Your task to perform on an android device: check android version Image 0: 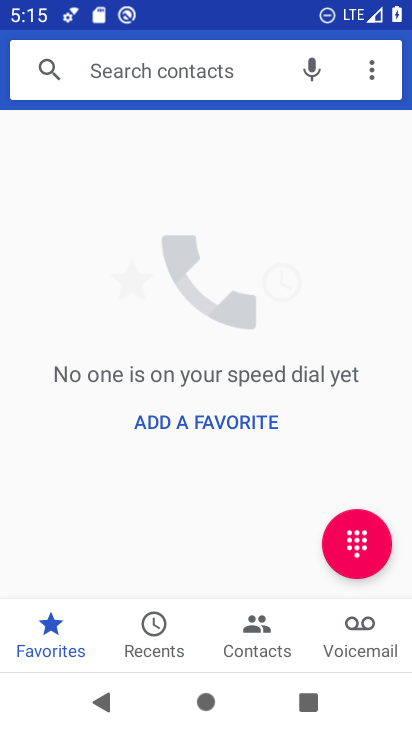
Step 0: drag from (382, 560) to (386, 82)
Your task to perform on an android device: check android version Image 1: 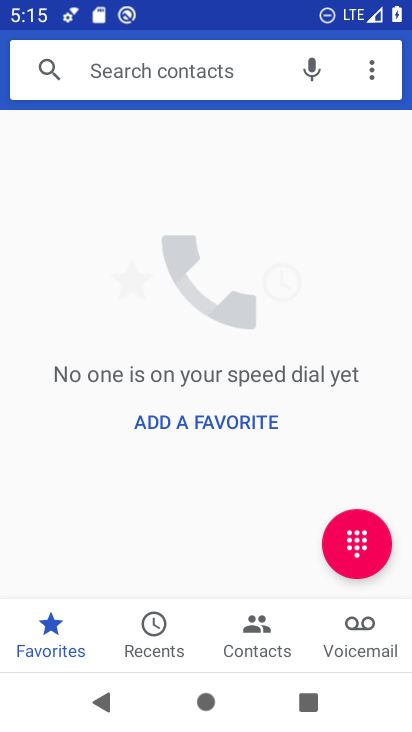
Step 1: press home button
Your task to perform on an android device: check android version Image 2: 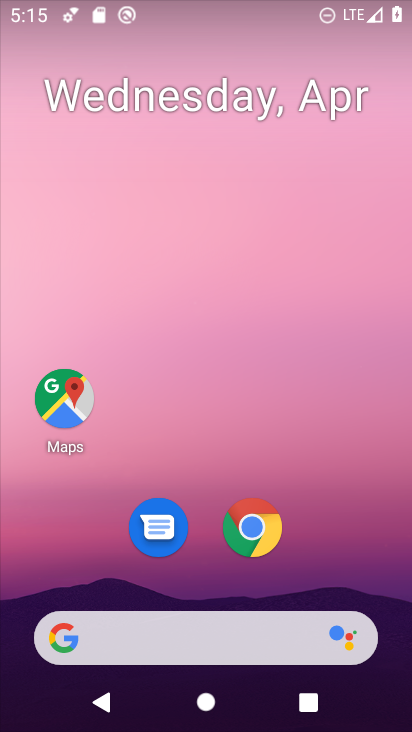
Step 2: drag from (309, 439) to (322, 14)
Your task to perform on an android device: check android version Image 3: 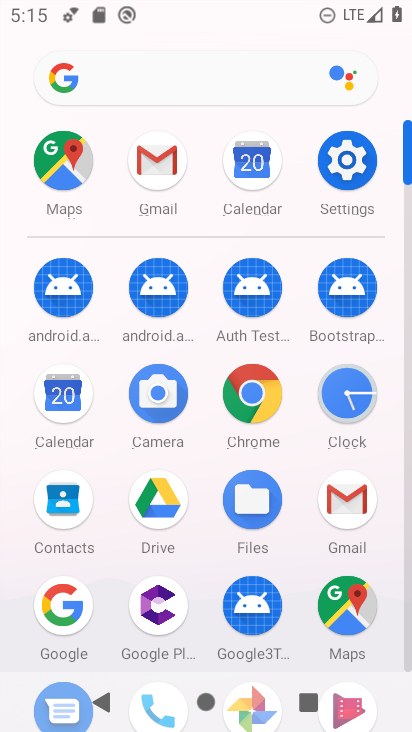
Step 3: click (345, 165)
Your task to perform on an android device: check android version Image 4: 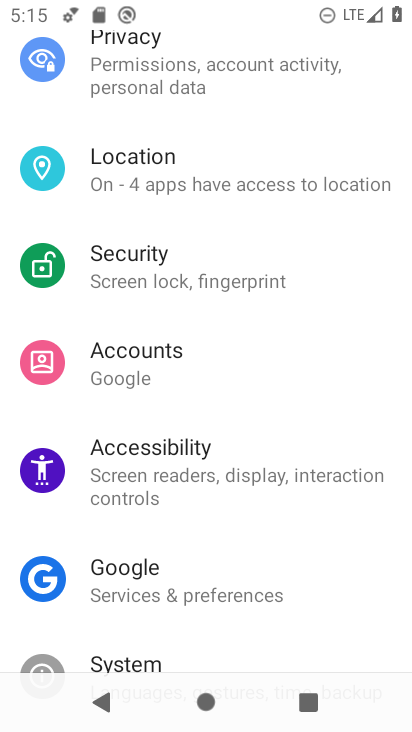
Step 4: drag from (322, 524) to (292, 66)
Your task to perform on an android device: check android version Image 5: 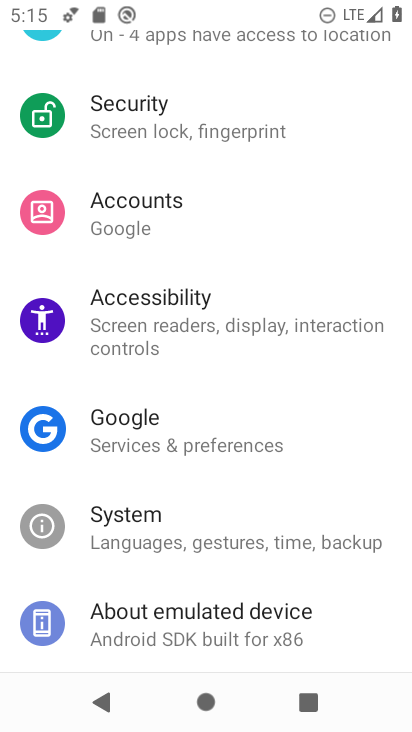
Step 5: click (189, 631)
Your task to perform on an android device: check android version Image 6: 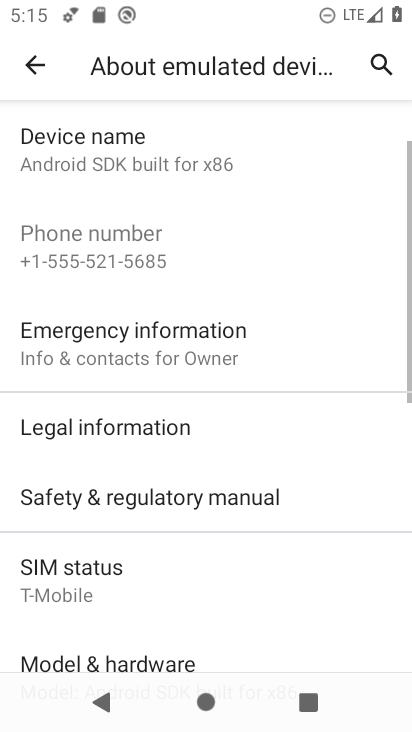
Step 6: drag from (178, 515) to (203, 39)
Your task to perform on an android device: check android version Image 7: 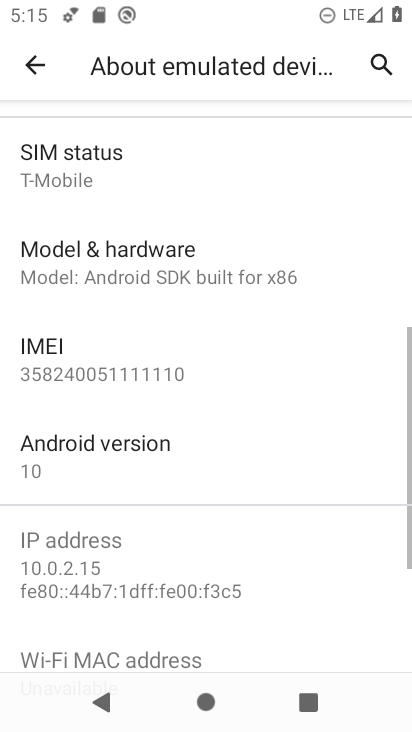
Step 7: click (118, 456)
Your task to perform on an android device: check android version Image 8: 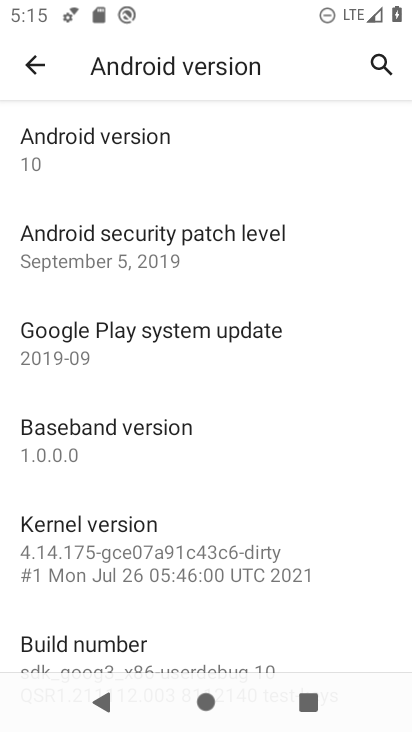
Step 8: task complete